Your task to perform on an android device: Go to wifi settings Image 0: 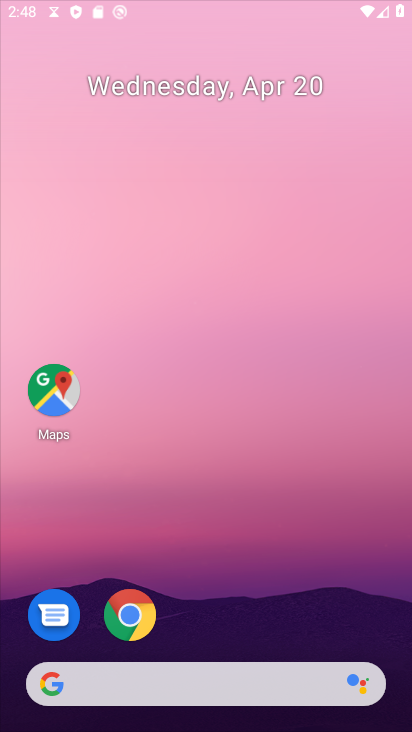
Step 0: drag from (198, 646) to (271, 8)
Your task to perform on an android device: Go to wifi settings Image 1: 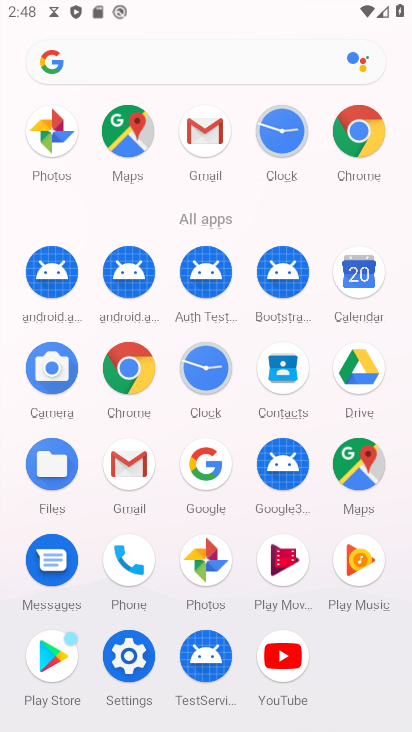
Step 1: click (119, 638)
Your task to perform on an android device: Go to wifi settings Image 2: 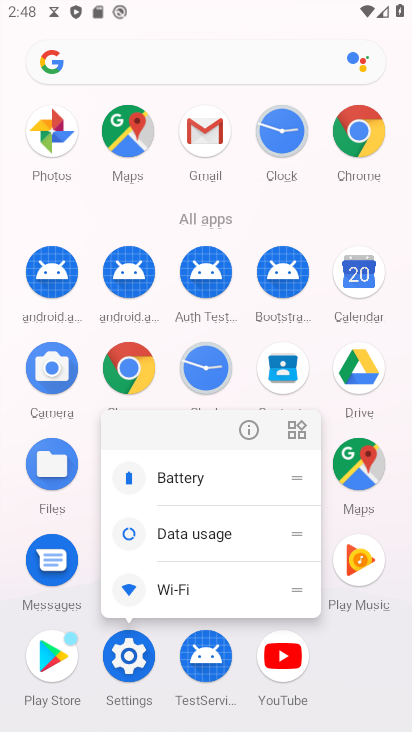
Step 2: click (247, 434)
Your task to perform on an android device: Go to wifi settings Image 3: 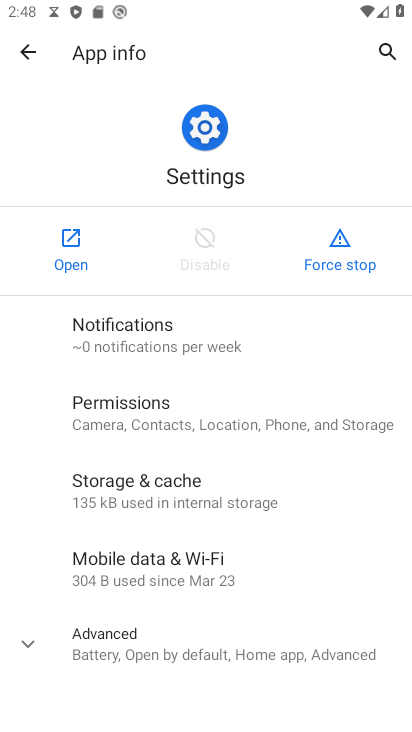
Step 3: click (75, 249)
Your task to perform on an android device: Go to wifi settings Image 4: 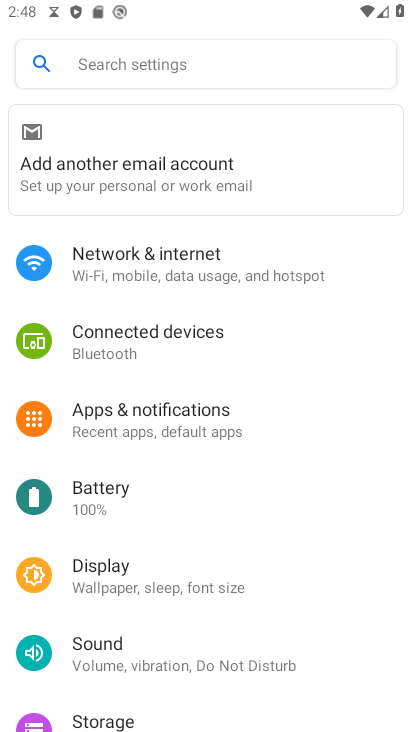
Step 4: click (159, 260)
Your task to perform on an android device: Go to wifi settings Image 5: 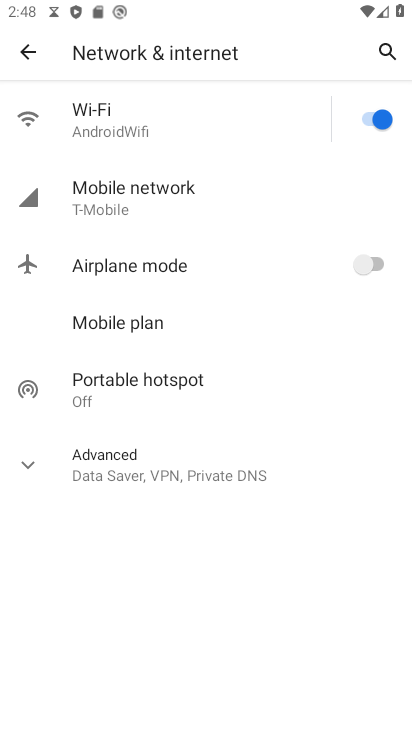
Step 5: click (180, 100)
Your task to perform on an android device: Go to wifi settings Image 6: 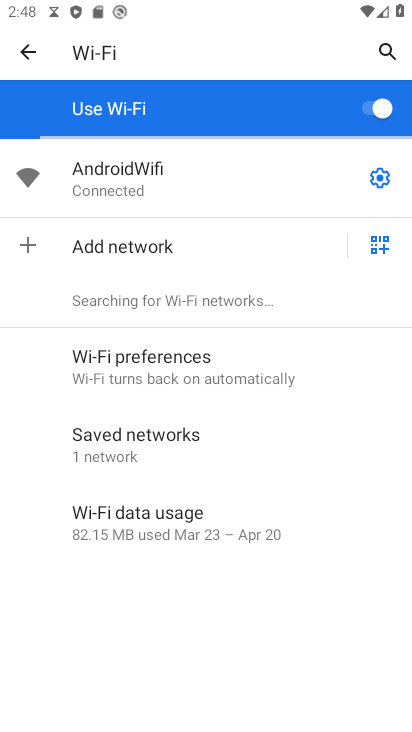
Step 6: click (372, 170)
Your task to perform on an android device: Go to wifi settings Image 7: 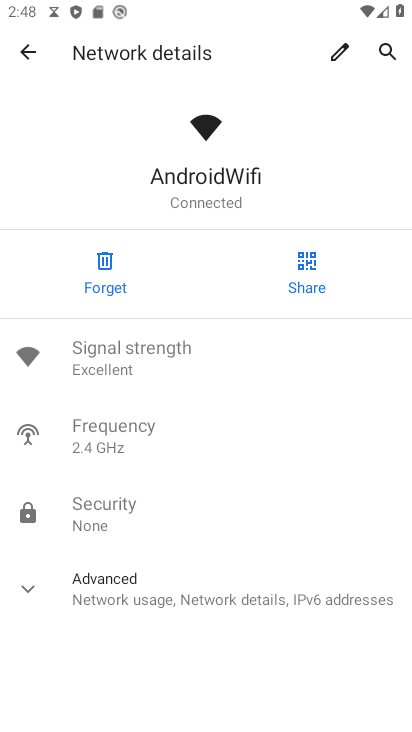
Step 7: task complete